Your task to perform on an android device: toggle data saver in the chrome app Image 0: 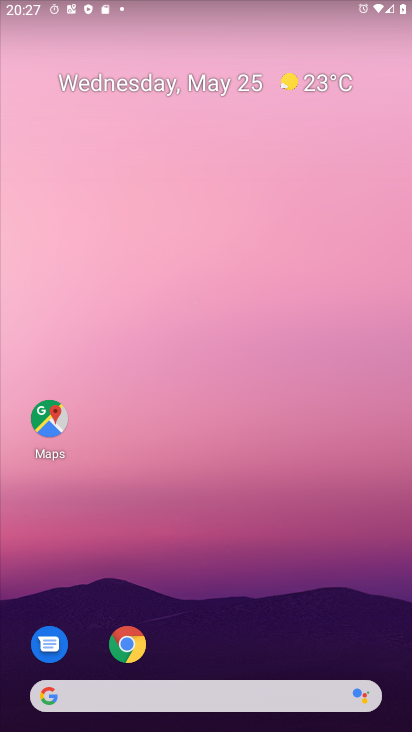
Step 0: drag from (258, 724) to (276, 59)
Your task to perform on an android device: toggle data saver in the chrome app Image 1: 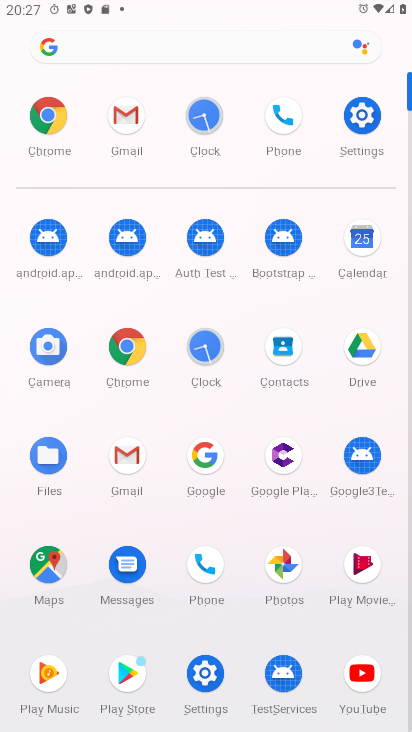
Step 1: click (33, 117)
Your task to perform on an android device: toggle data saver in the chrome app Image 2: 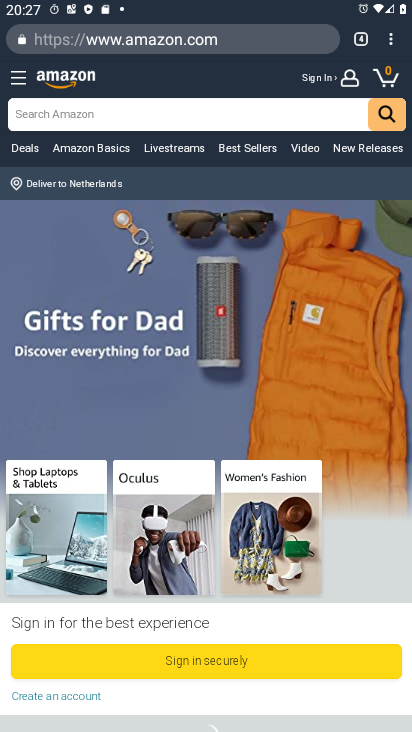
Step 2: click (389, 40)
Your task to perform on an android device: toggle data saver in the chrome app Image 3: 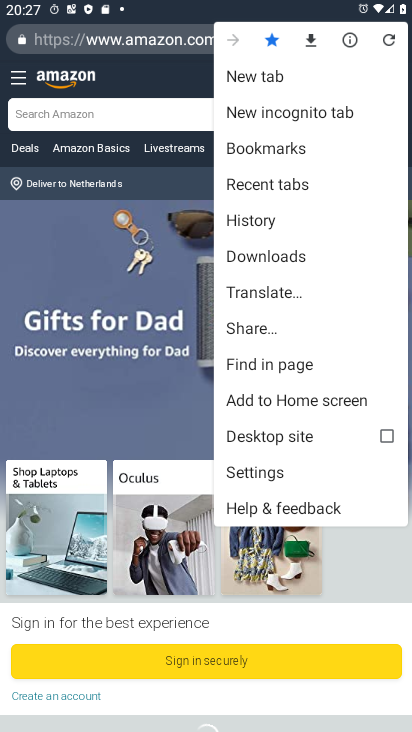
Step 3: click (247, 471)
Your task to perform on an android device: toggle data saver in the chrome app Image 4: 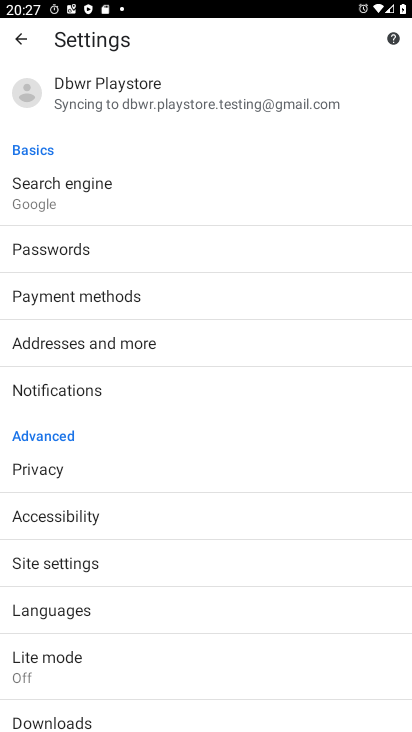
Step 4: click (78, 672)
Your task to perform on an android device: toggle data saver in the chrome app Image 5: 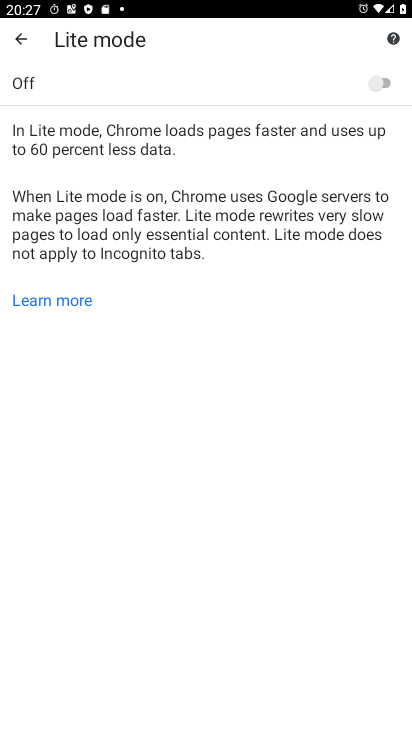
Step 5: click (378, 79)
Your task to perform on an android device: toggle data saver in the chrome app Image 6: 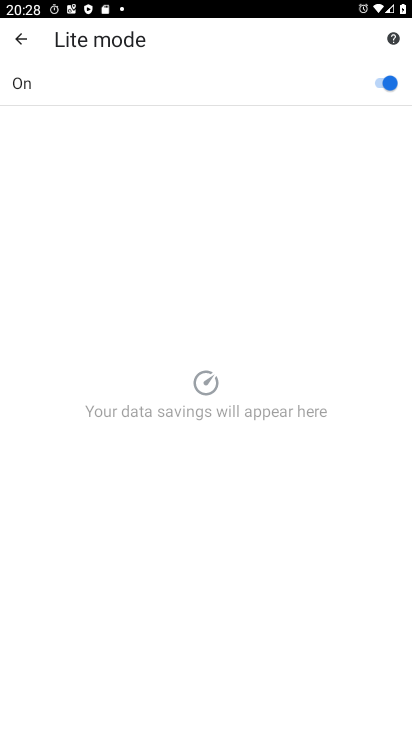
Step 6: task complete